Your task to perform on an android device: toggle notification dots Image 0: 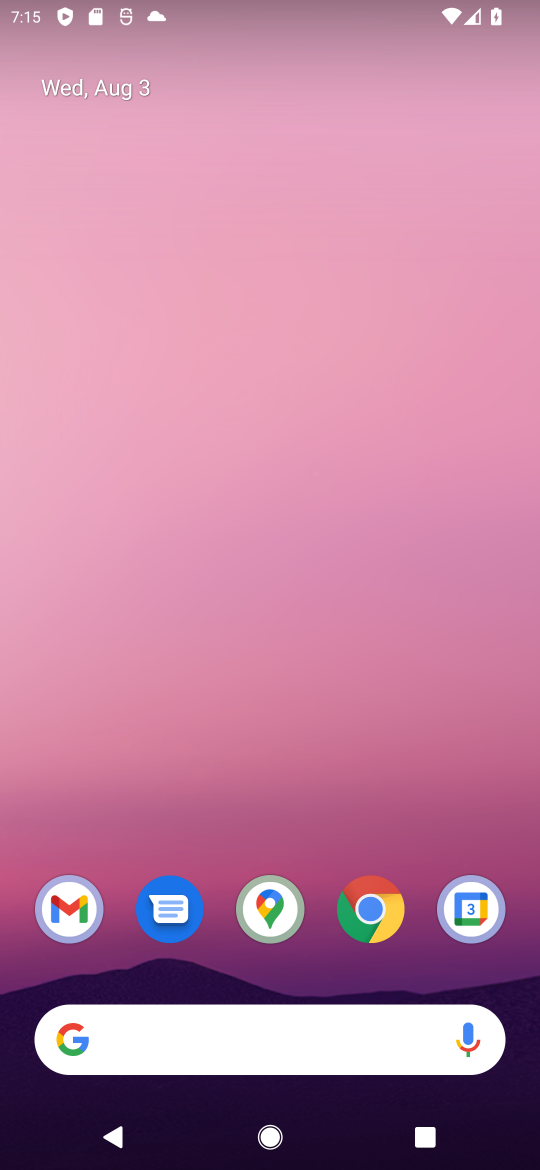
Step 0: press home button
Your task to perform on an android device: toggle notification dots Image 1: 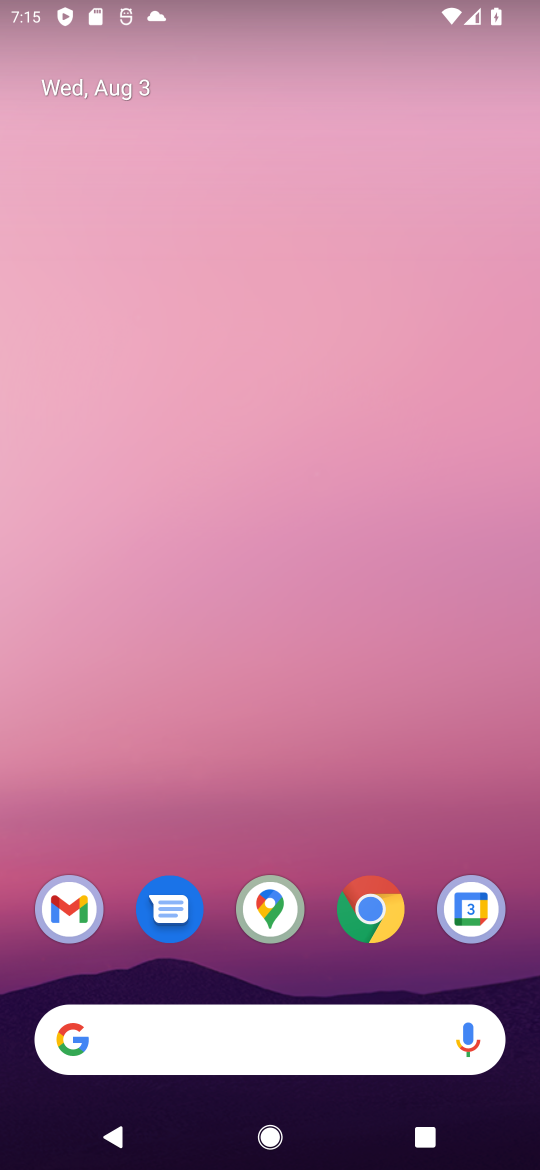
Step 1: drag from (386, 646) to (377, 124)
Your task to perform on an android device: toggle notification dots Image 2: 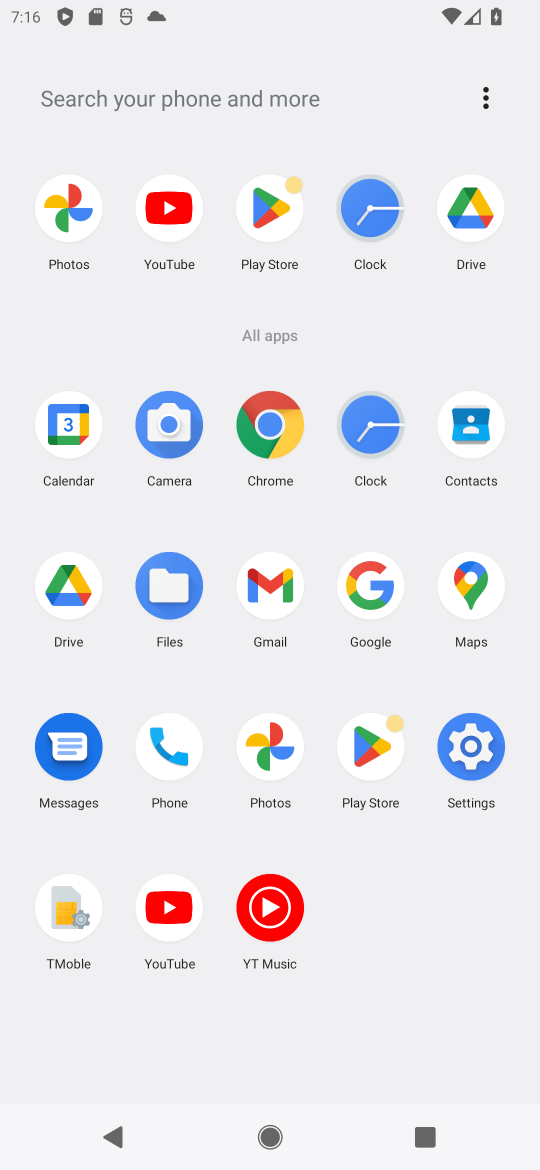
Step 2: click (475, 755)
Your task to perform on an android device: toggle notification dots Image 3: 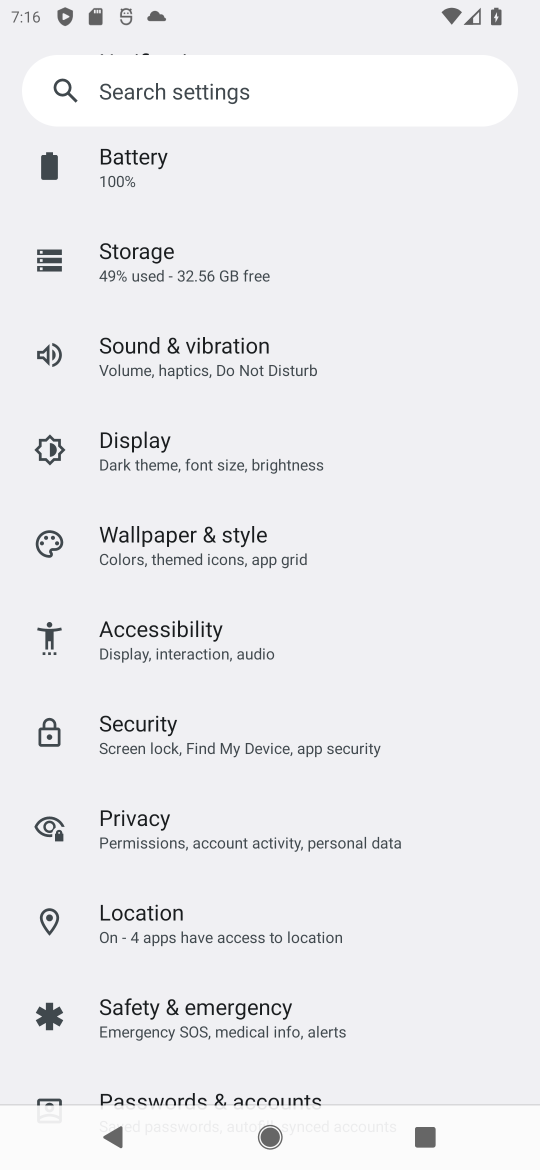
Step 3: drag from (415, 912) to (417, 605)
Your task to perform on an android device: toggle notification dots Image 4: 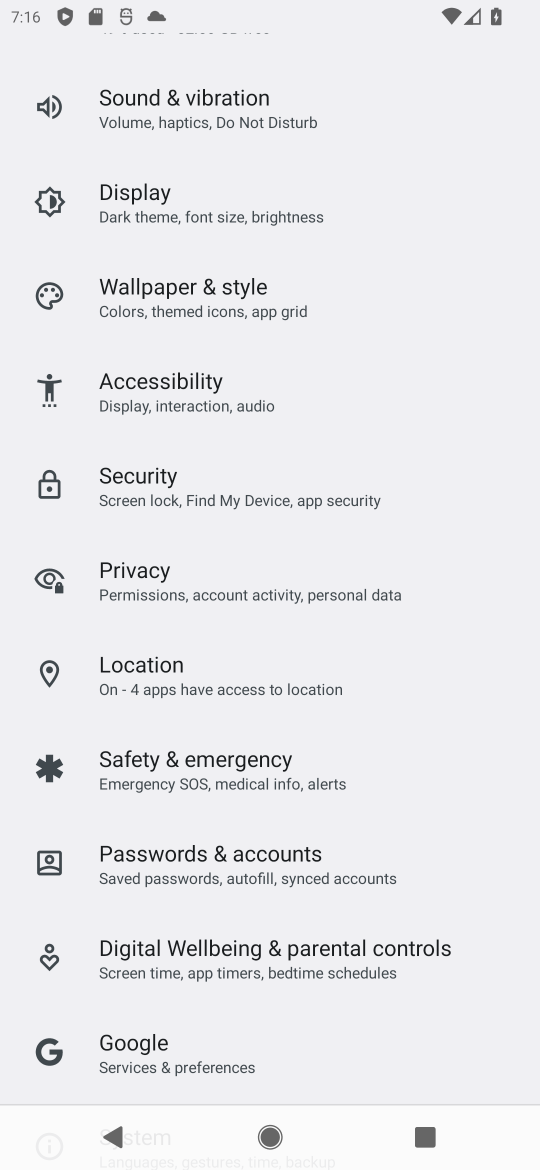
Step 4: drag from (455, 995) to (458, 742)
Your task to perform on an android device: toggle notification dots Image 5: 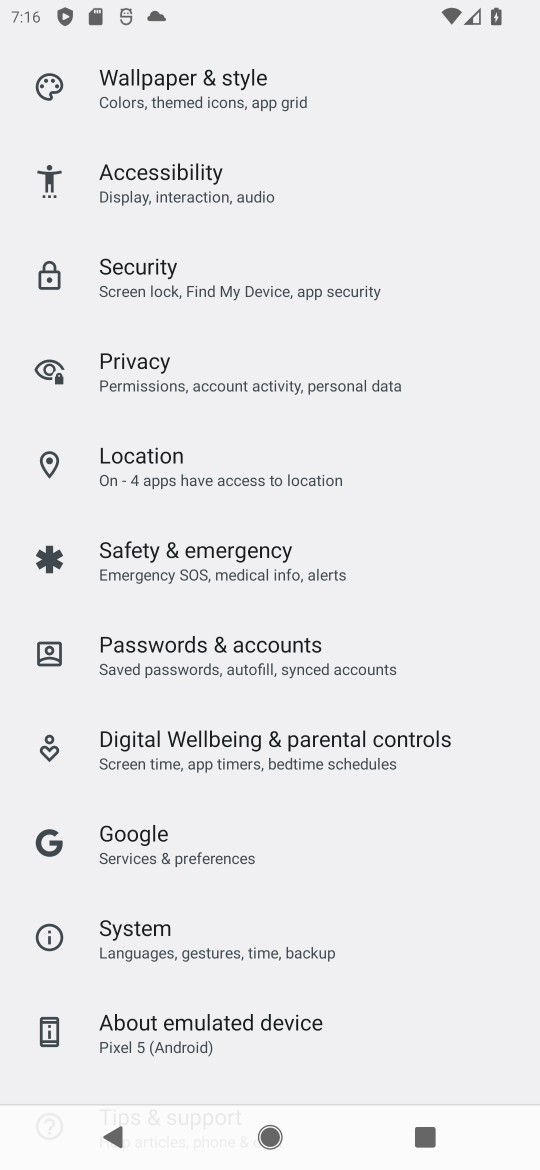
Step 5: drag from (433, 871) to (434, 618)
Your task to perform on an android device: toggle notification dots Image 6: 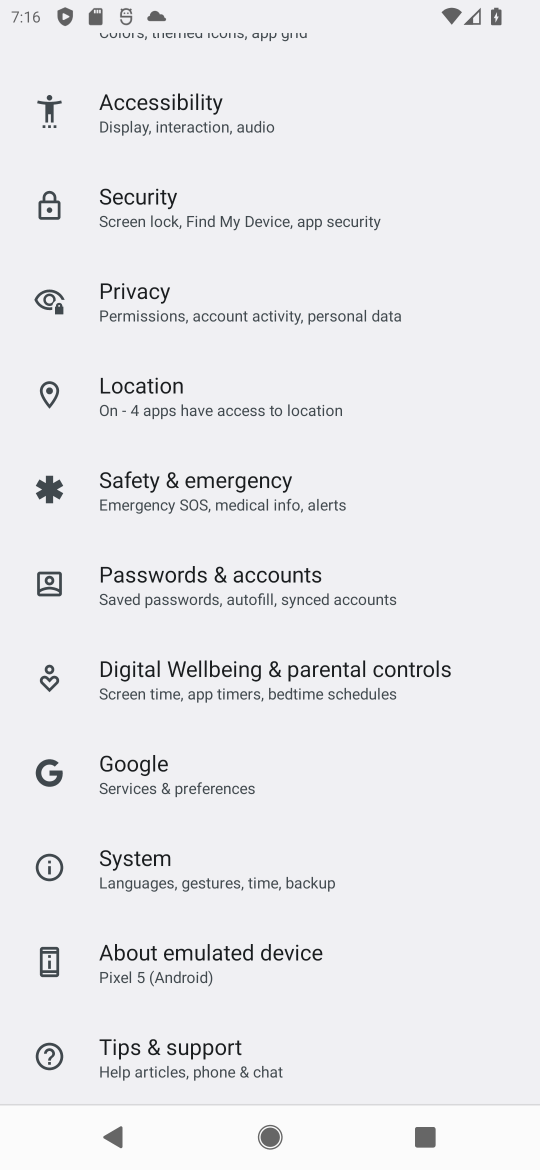
Step 6: drag from (439, 879) to (432, 645)
Your task to perform on an android device: toggle notification dots Image 7: 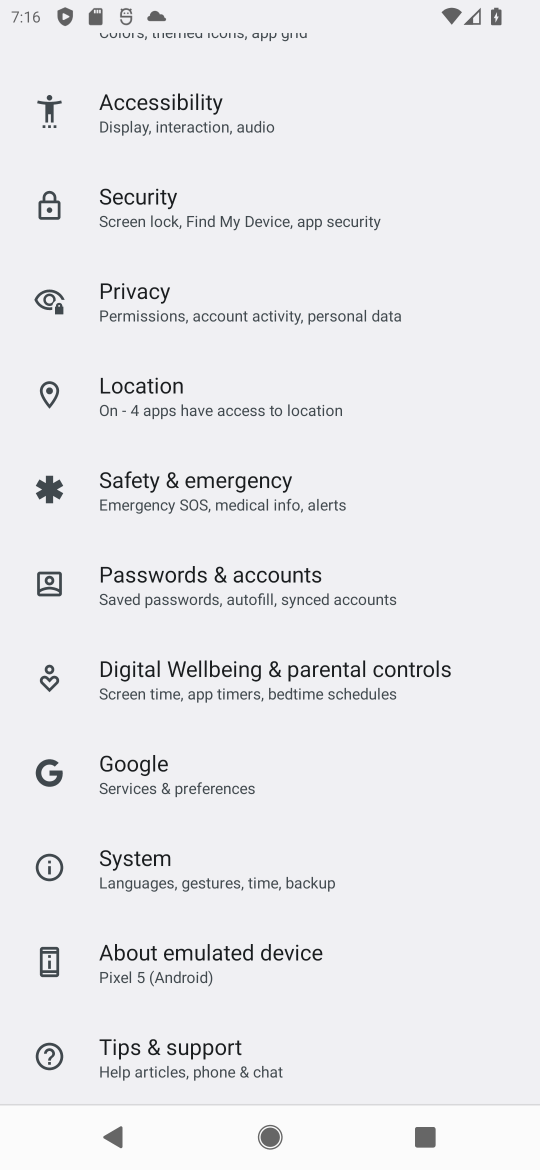
Step 7: drag from (435, 522) to (439, 817)
Your task to perform on an android device: toggle notification dots Image 8: 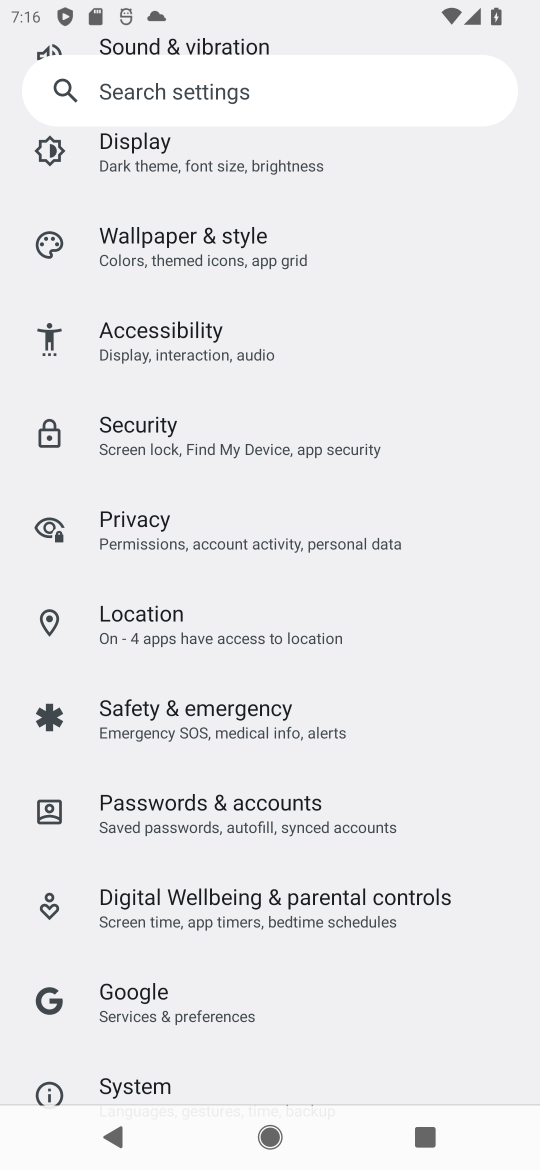
Step 8: drag from (442, 403) to (444, 801)
Your task to perform on an android device: toggle notification dots Image 9: 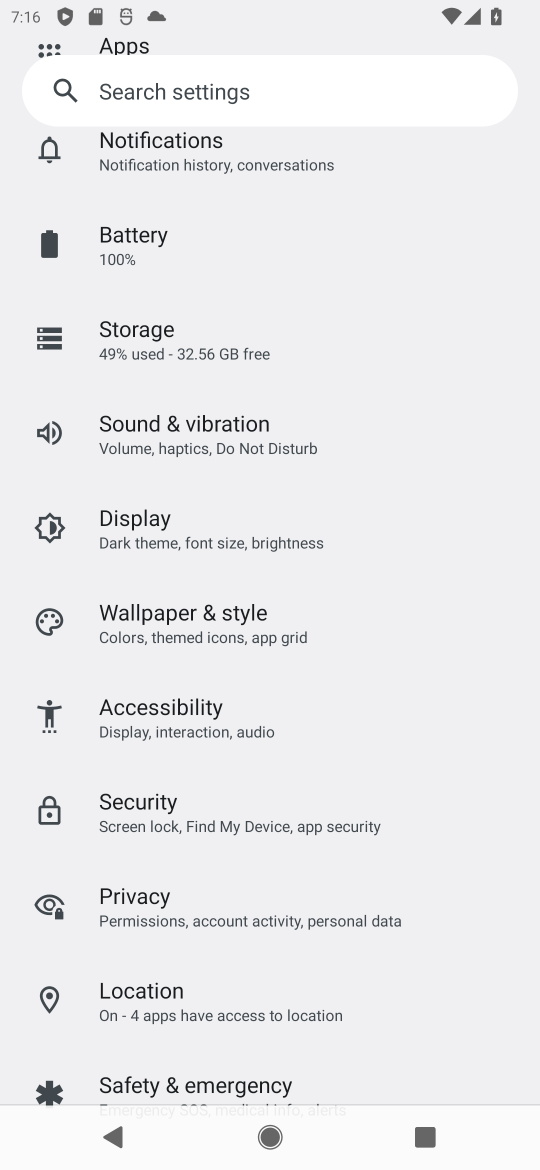
Step 9: drag from (434, 372) to (428, 761)
Your task to perform on an android device: toggle notification dots Image 10: 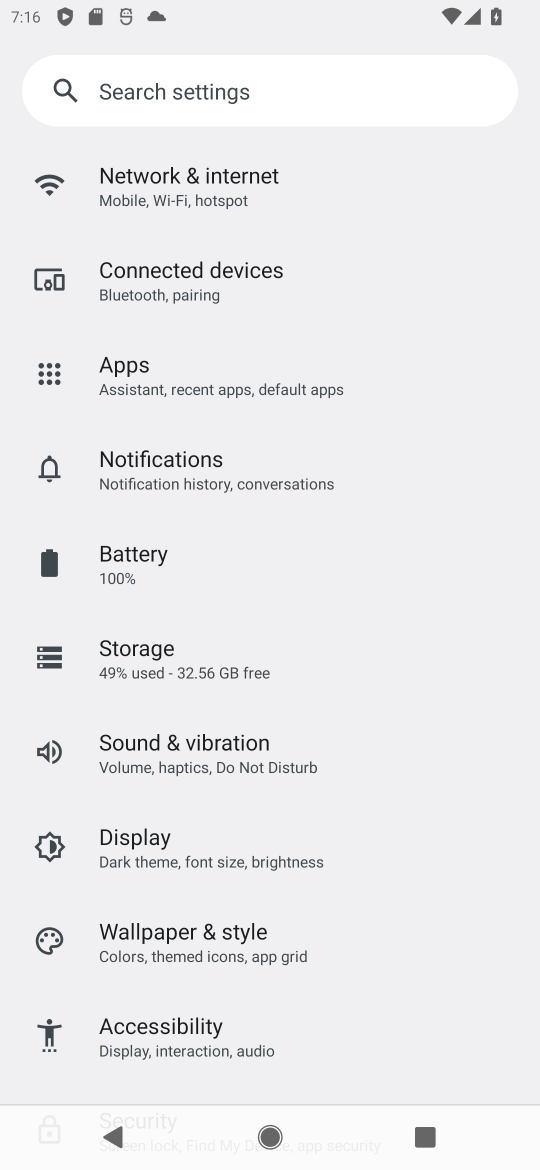
Step 10: drag from (445, 328) to (415, 680)
Your task to perform on an android device: toggle notification dots Image 11: 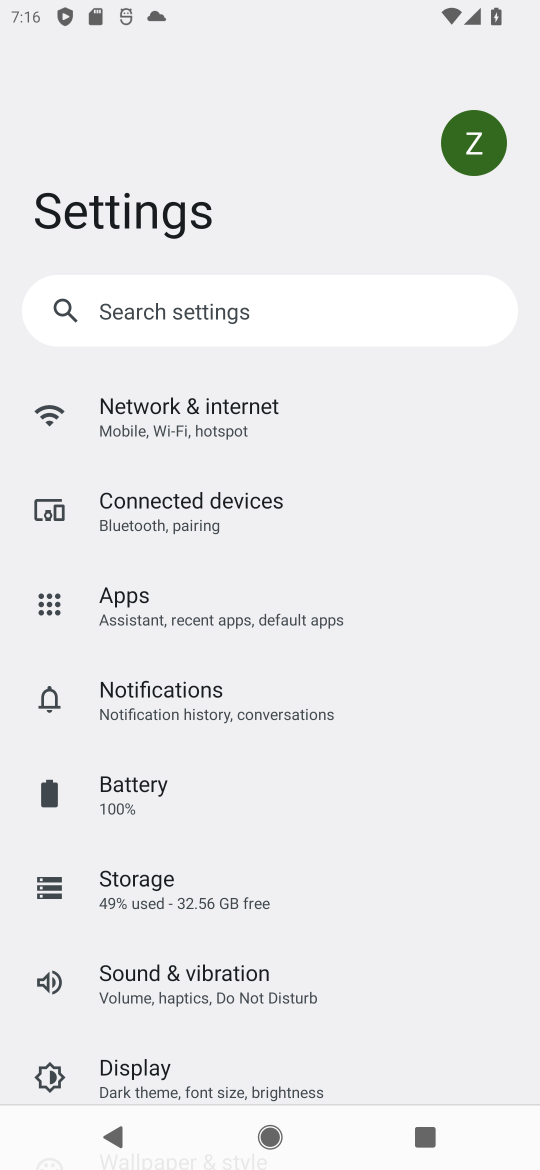
Step 11: click (228, 707)
Your task to perform on an android device: toggle notification dots Image 12: 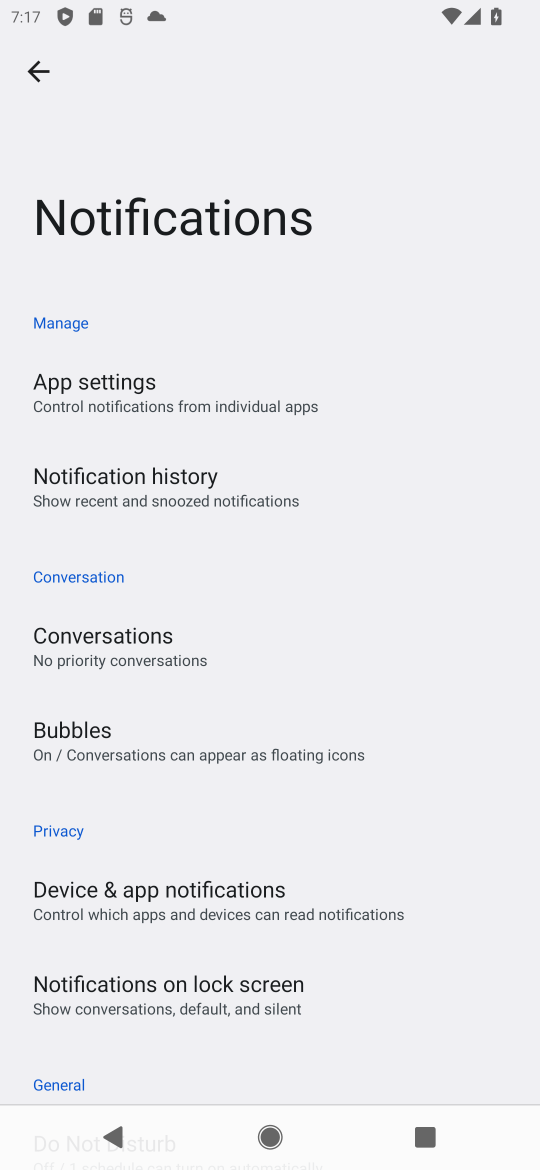
Step 12: task complete